Your task to perform on an android device: Search for the best deal on a 3d printer on aliexpress Image 0: 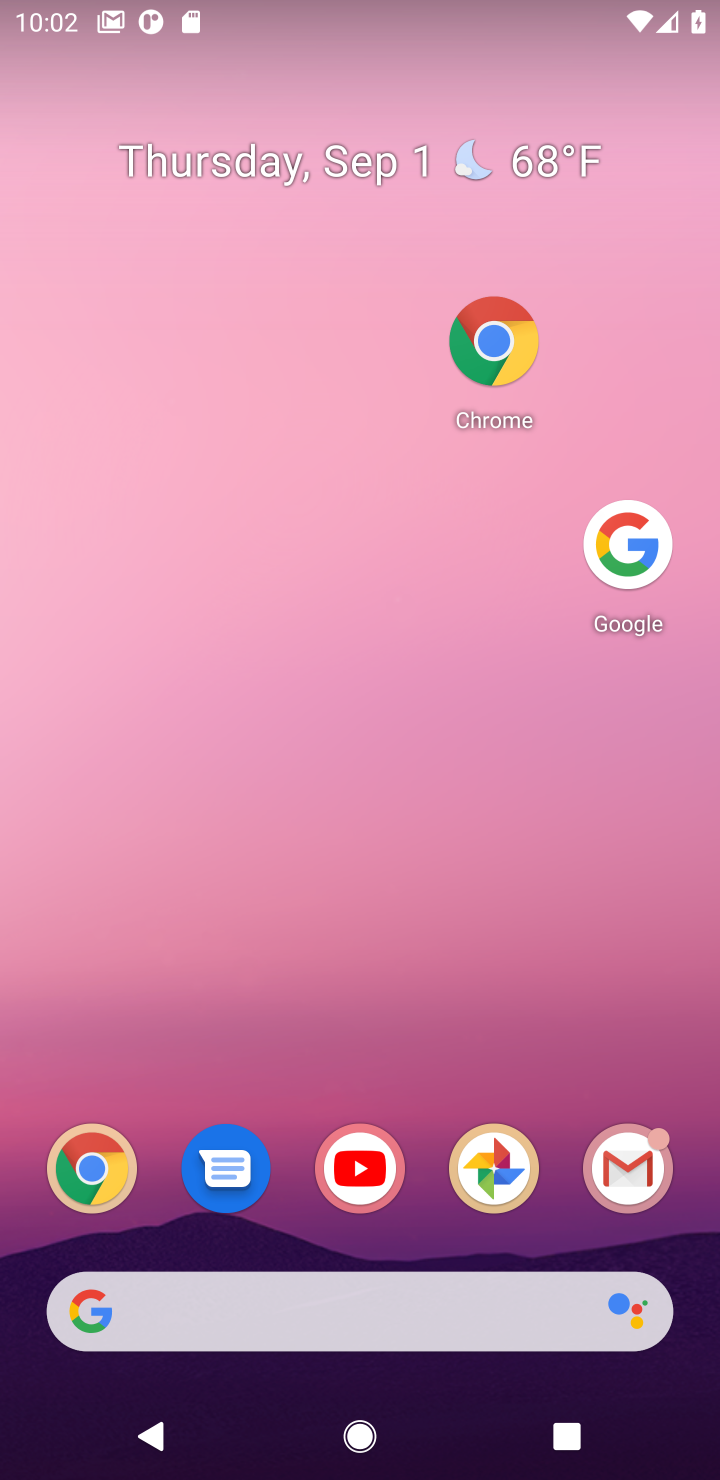
Step 0: drag from (238, 1078) to (372, 498)
Your task to perform on an android device: Search for the best deal on a 3d printer on aliexpress Image 1: 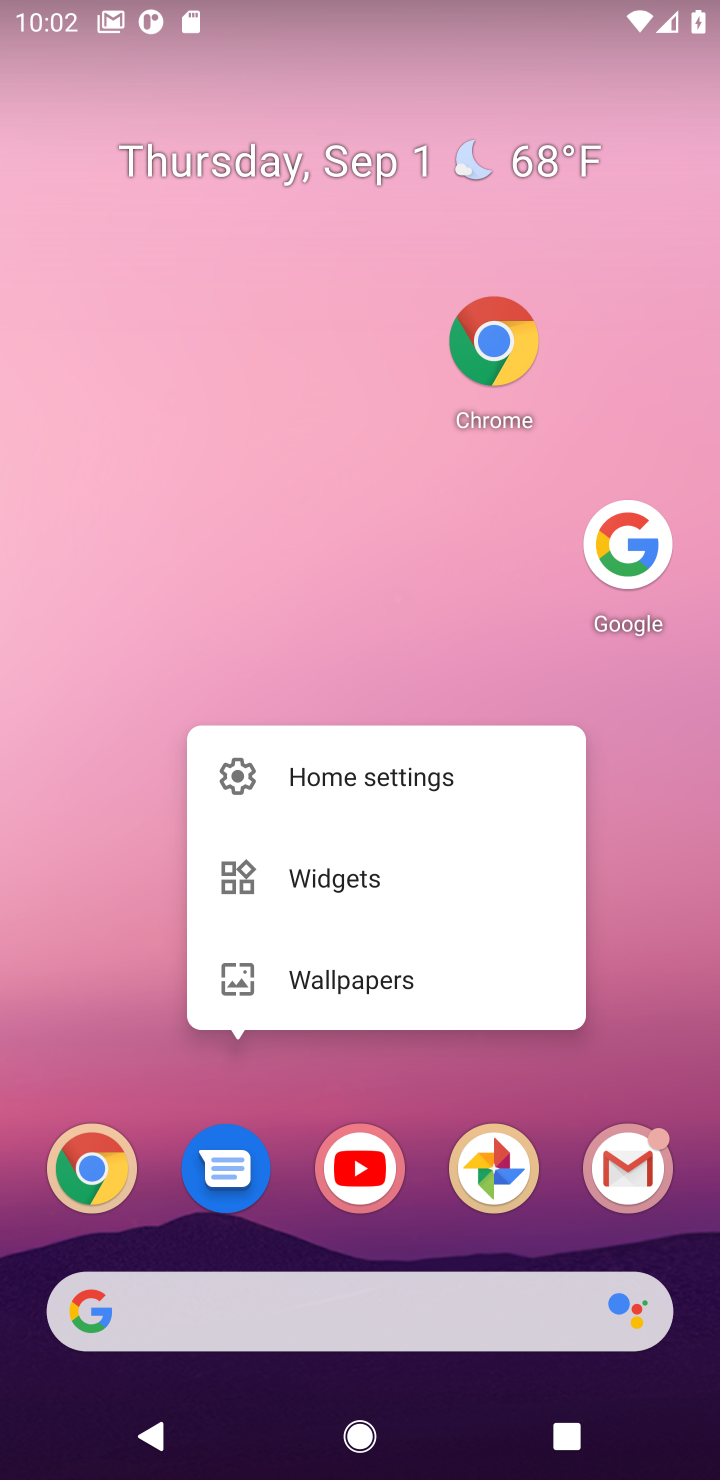
Step 1: click (632, 554)
Your task to perform on an android device: Search for the best deal on a 3d printer on aliexpress Image 2: 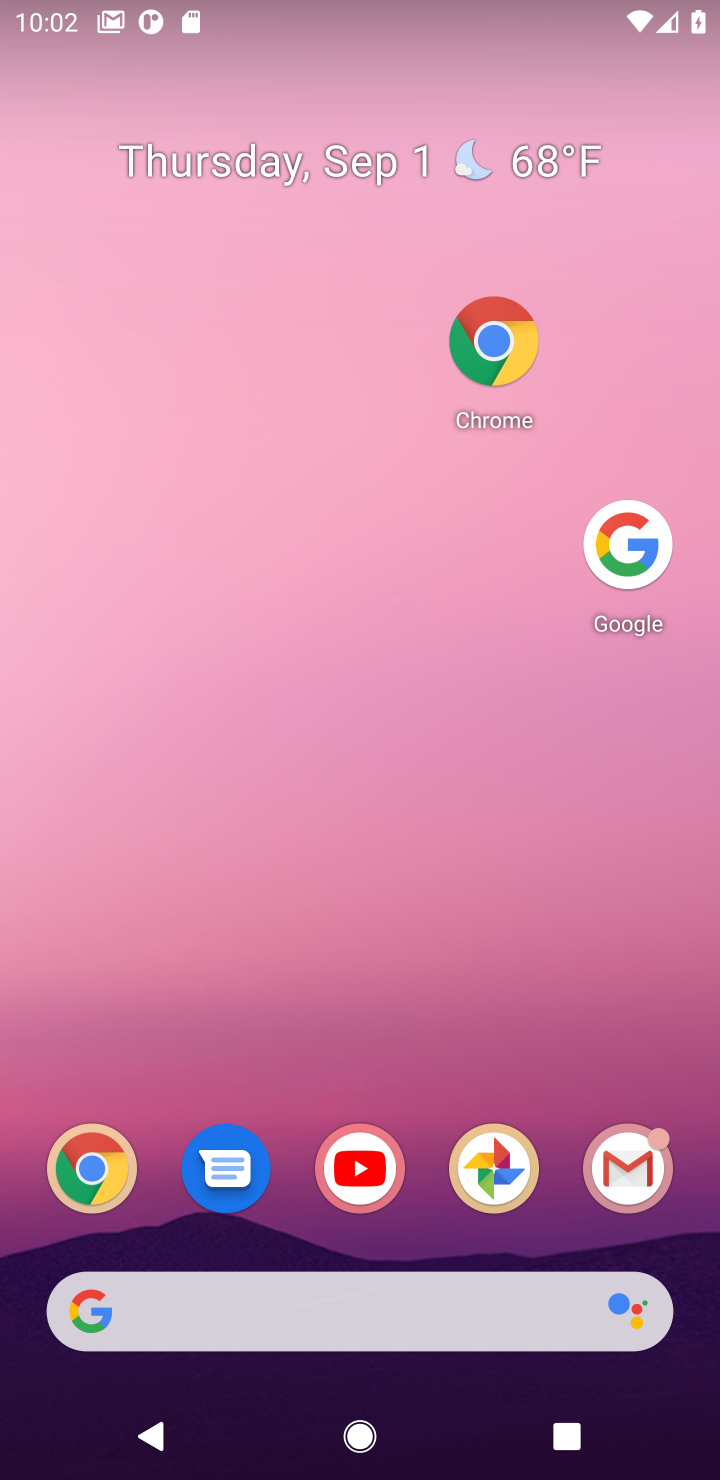
Step 2: click (620, 550)
Your task to perform on an android device: Search for the best deal on a 3d printer on aliexpress Image 3: 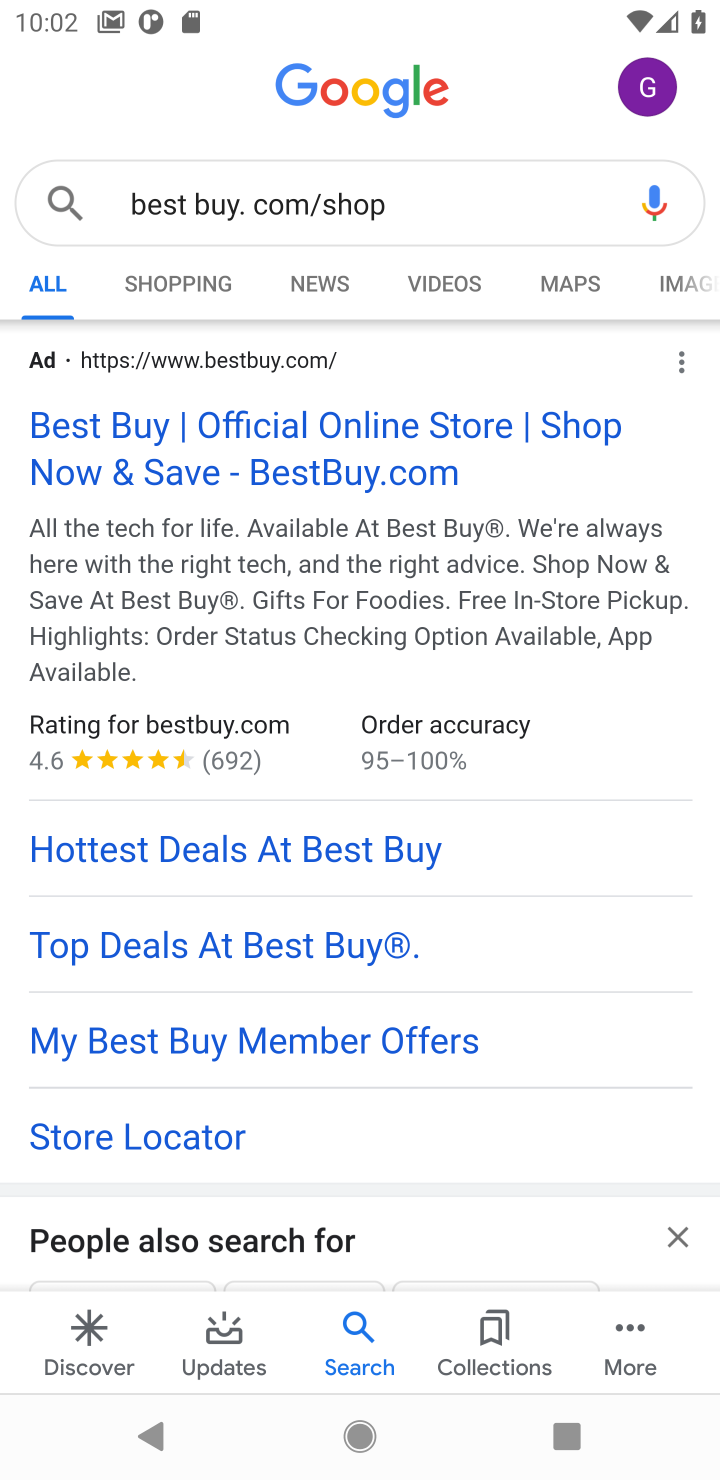
Step 3: click (474, 202)
Your task to perform on an android device: Search for the best deal on a 3d printer on aliexpress Image 4: 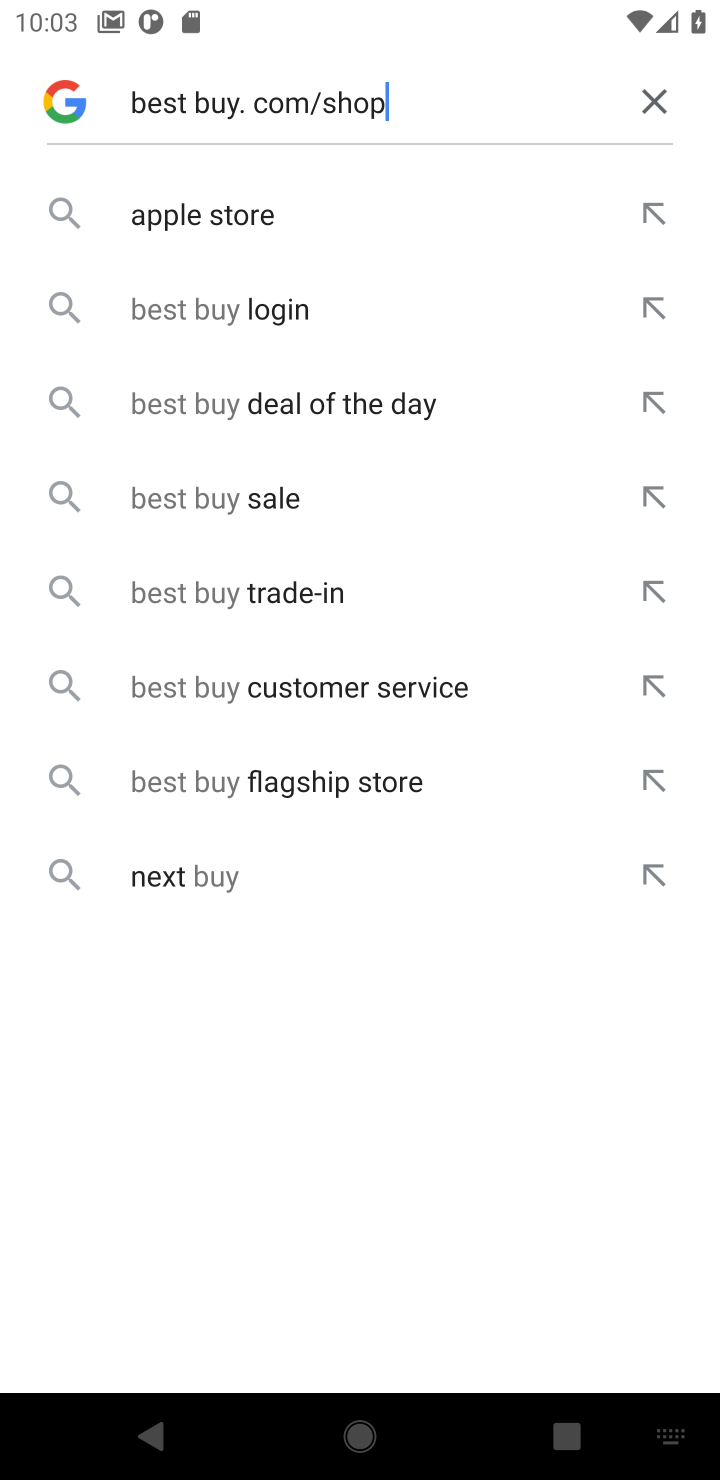
Step 4: click (651, 112)
Your task to perform on an android device: Search for the best deal on a 3d printer on aliexpress Image 5: 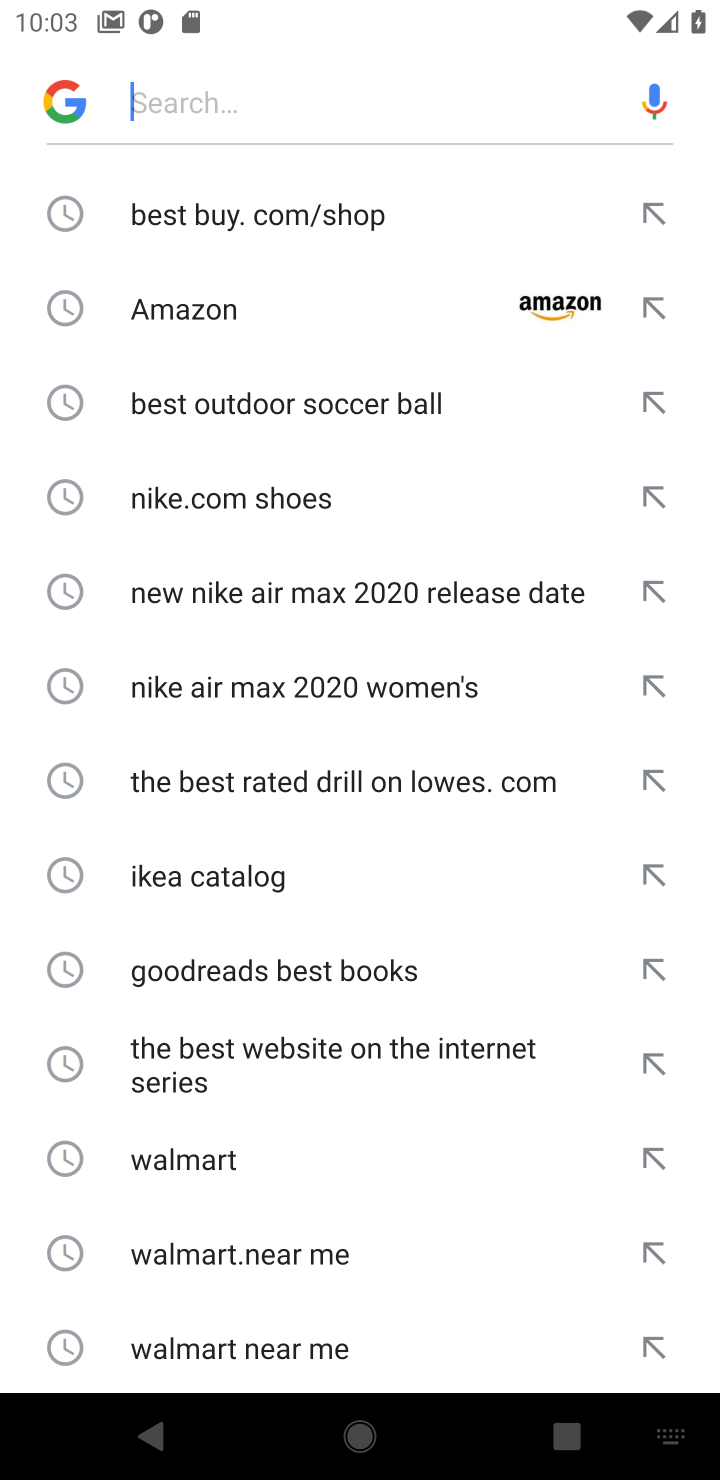
Step 5: click (273, 75)
Your task to perform on an android device: Search for the best deal on a 3d printer on aliexpress Image 6: 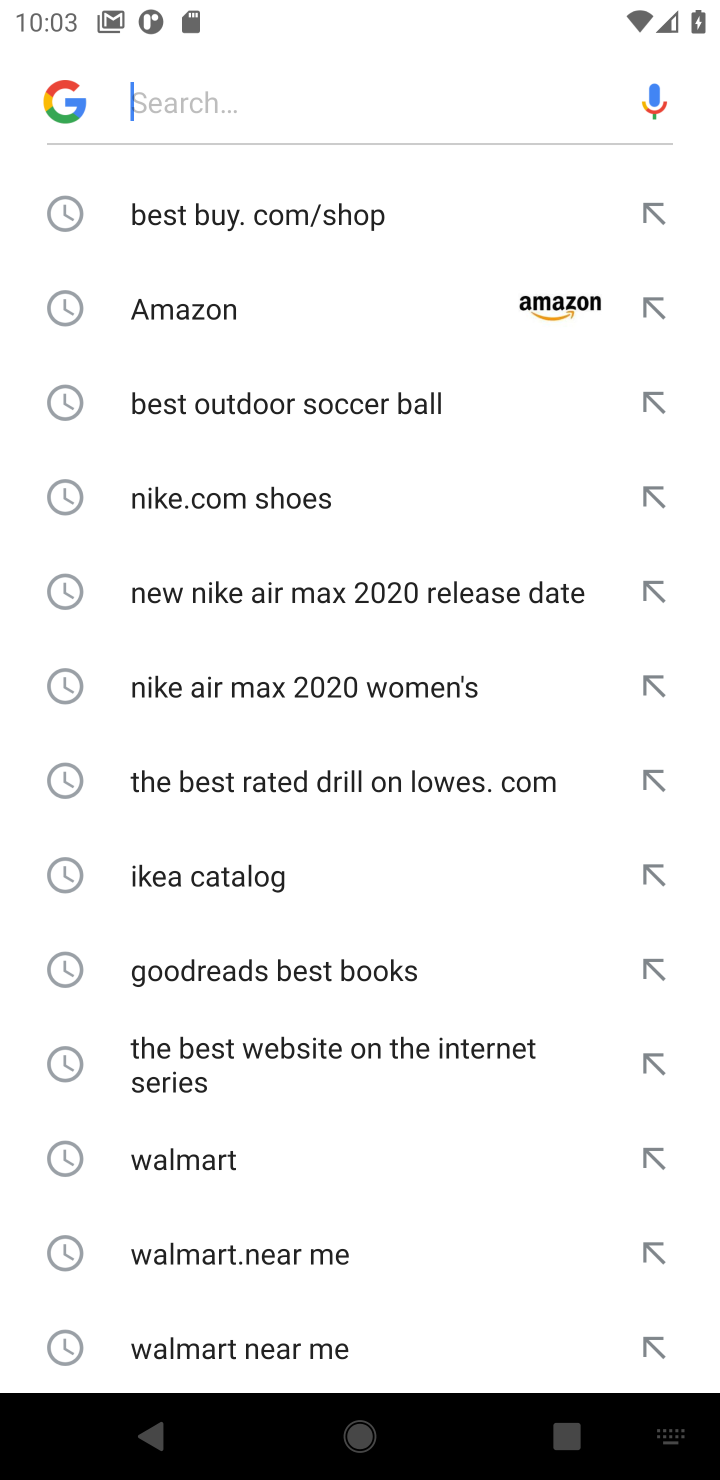
Step 6: type " the best deal on a 3d printer on aliexpress"
Your task to perform on an android device: Search for the best deal on a 3d printer on aliexpress Image 7: 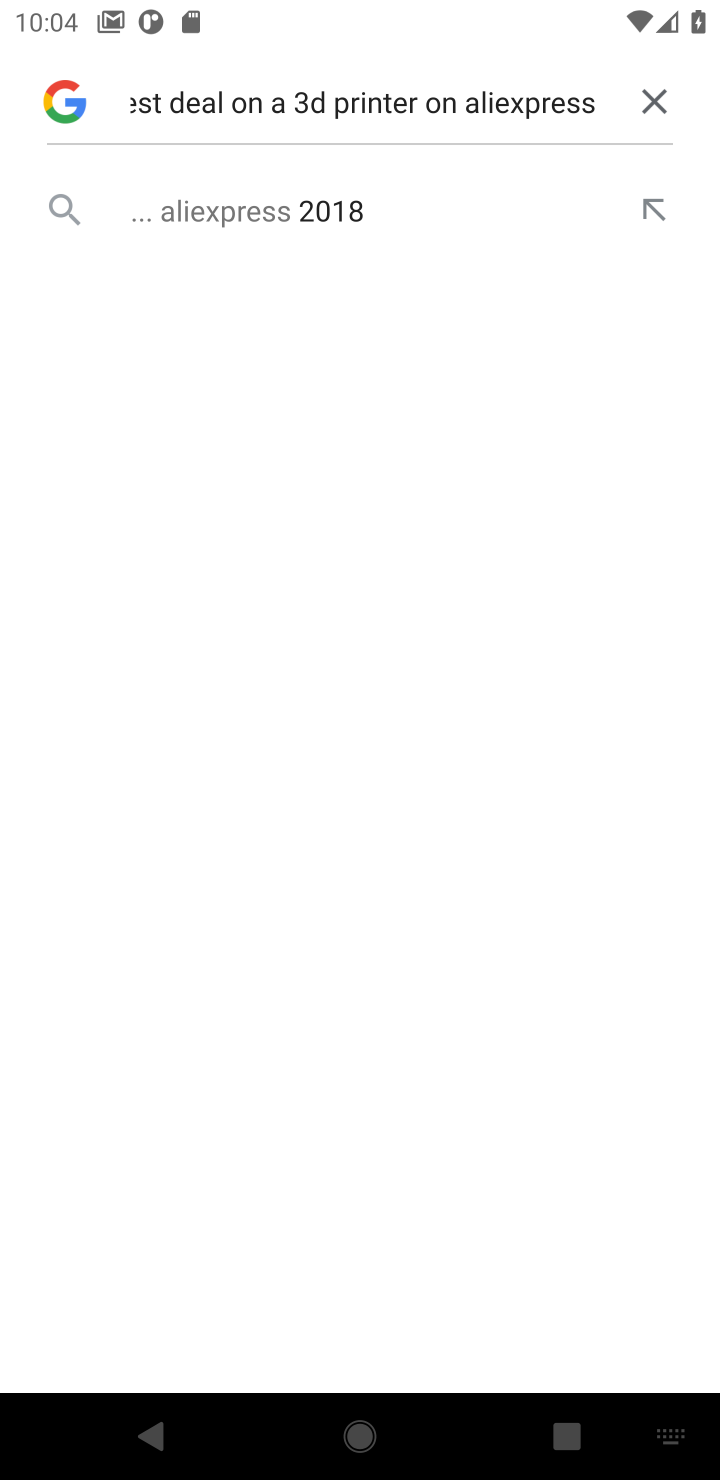
Step 7: click (242, 203)
Your task to perform on an android device: Search for the best deal on a 3d printer on aliexpress Image 8: 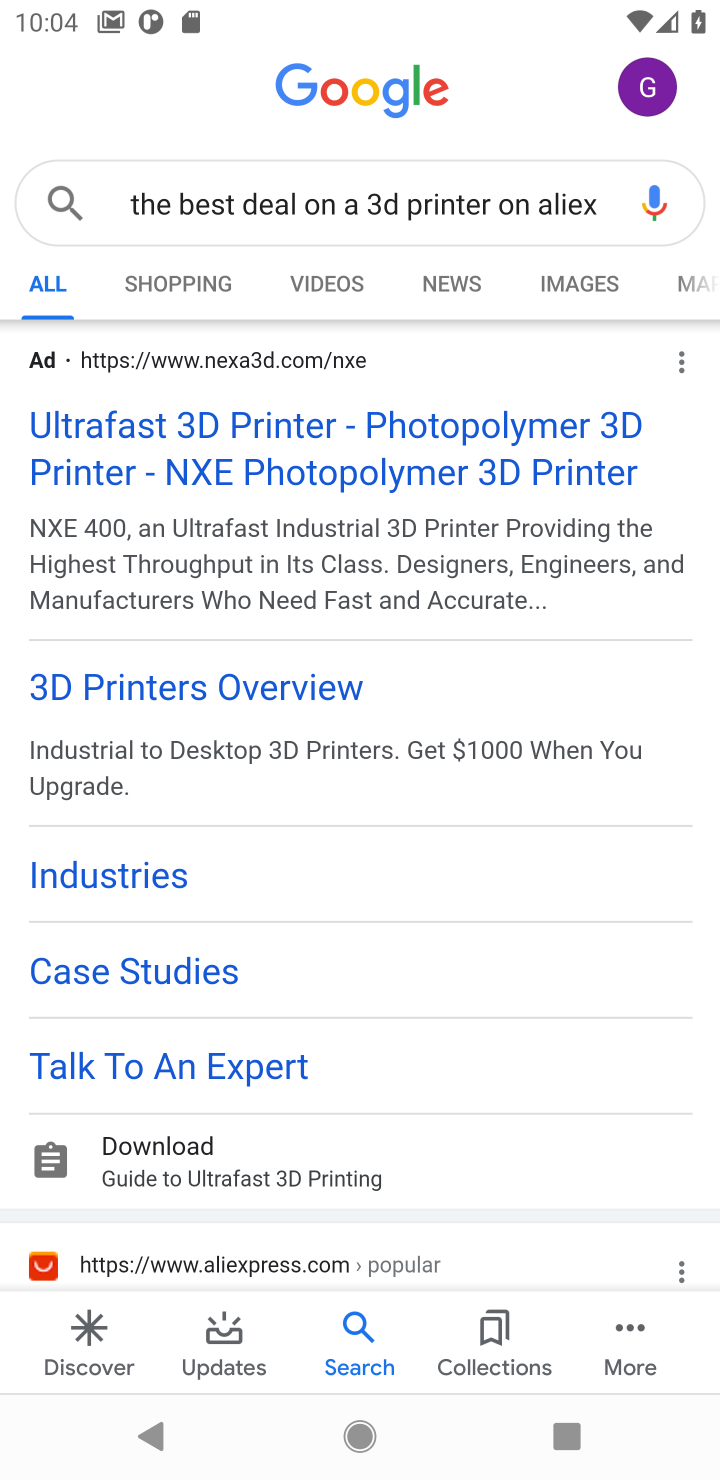
Step 8: click (371, 496)
Your task to perform on an android device: Search for the best deal on a 3d printer on aliexpress Image 9: 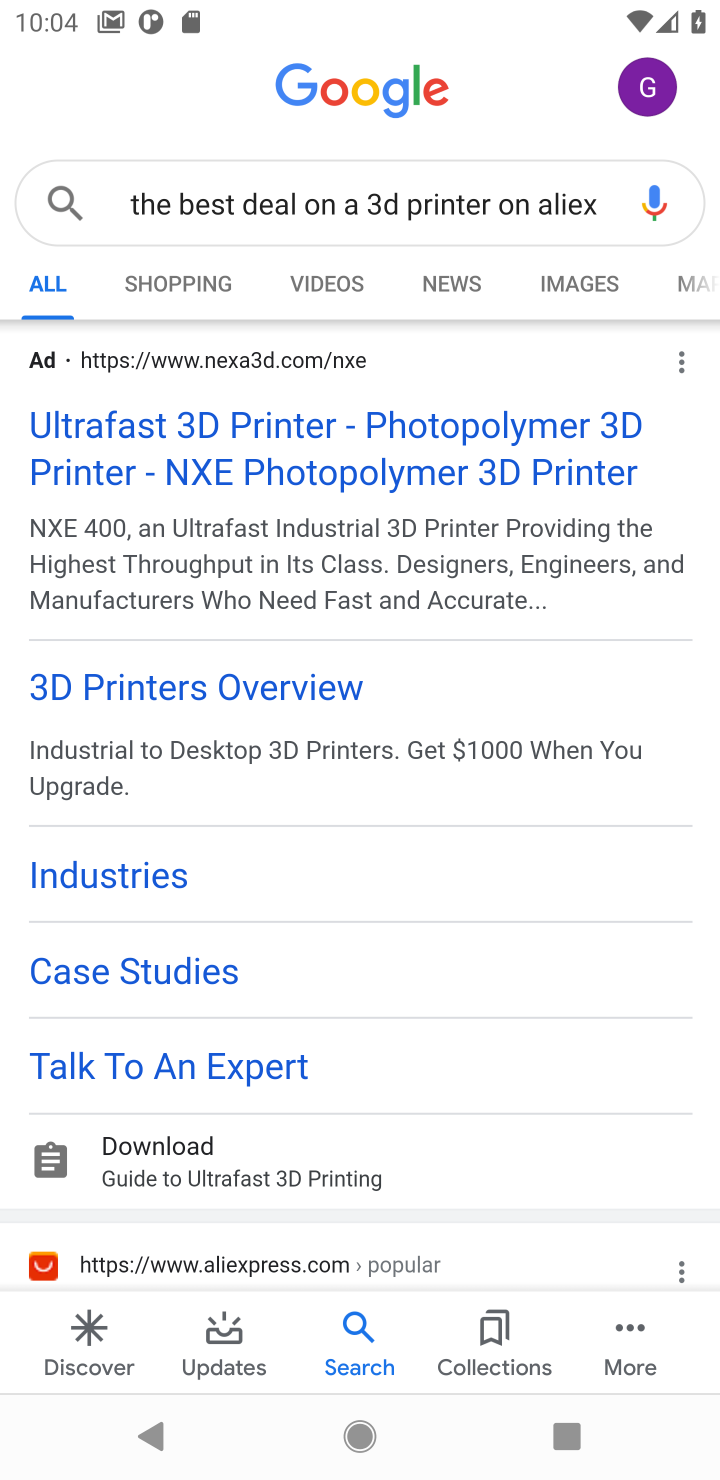
Step 9: drag from (446, 885) to (457, 374)
Your task to perform on an android device: Search for the best deal on a 3d printer on aliexpress Image 10: 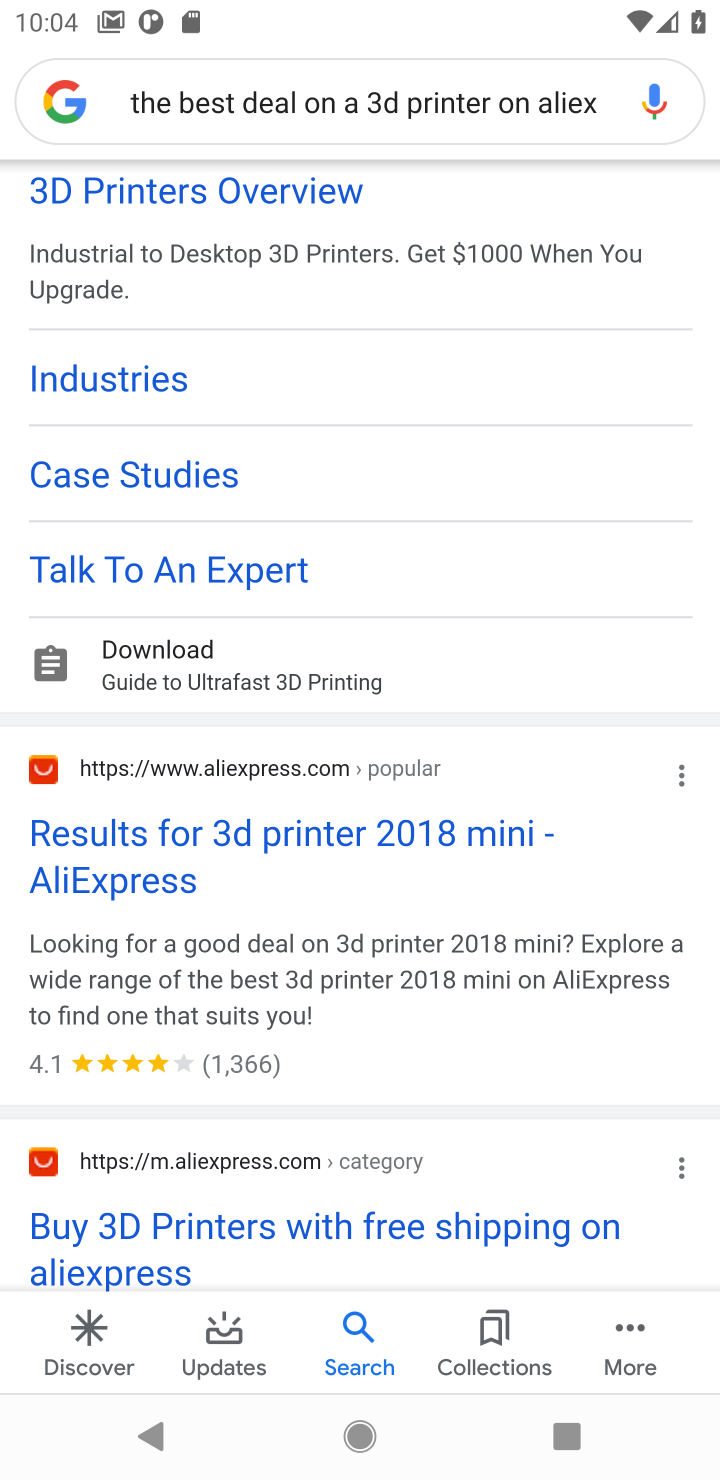
Step 10: click (140, 821)
Your task to perform on an android device: Search for the best deal on a 3d printer on aliexpress Image 11: 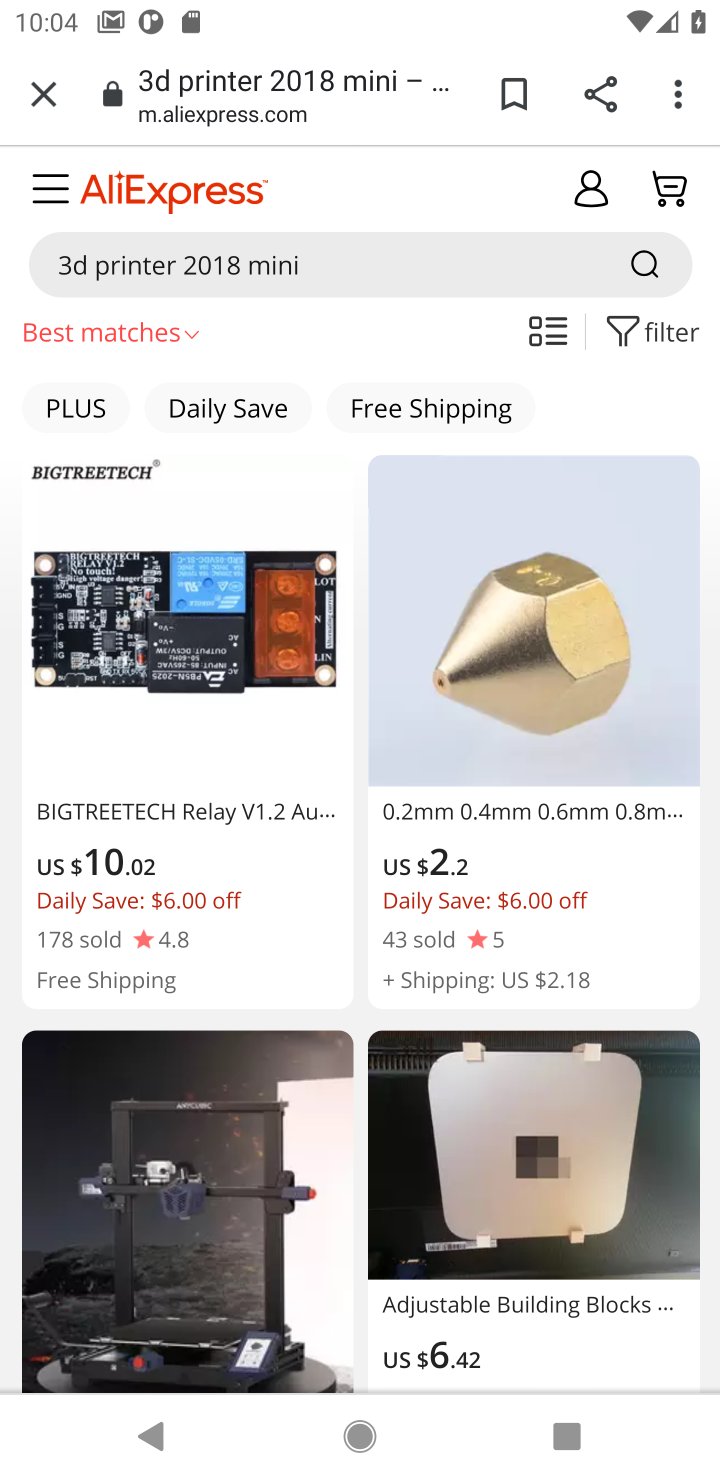
Step 11: drag from (284, 1095) to (366, 399)
Your task to perform on an android device: Search for the best deal on a 3d printer on aliexpress Image 12: 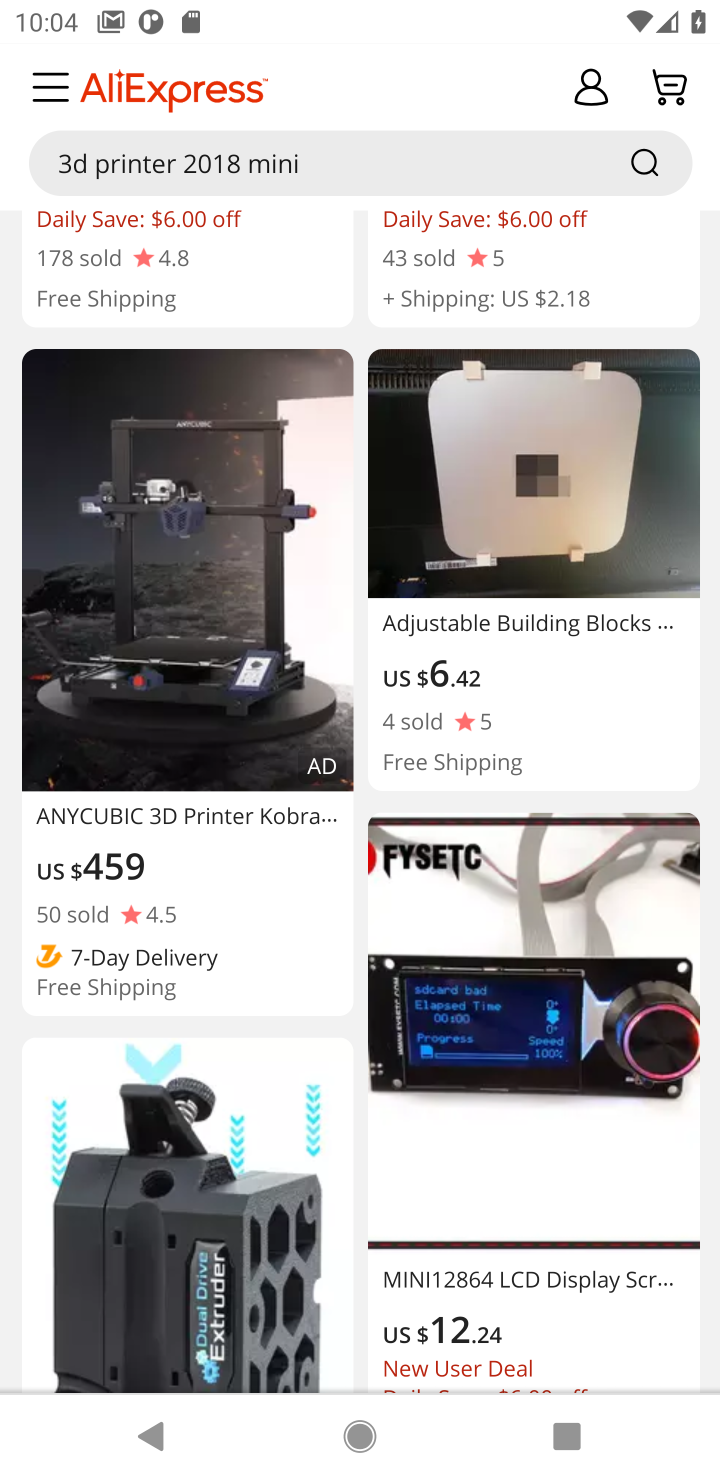
Step 12: drag from (318, 466) to (330, 1301)
Your task to perform on an android device: Search for the best deal on a 3d printer on aliexpress Image 13: 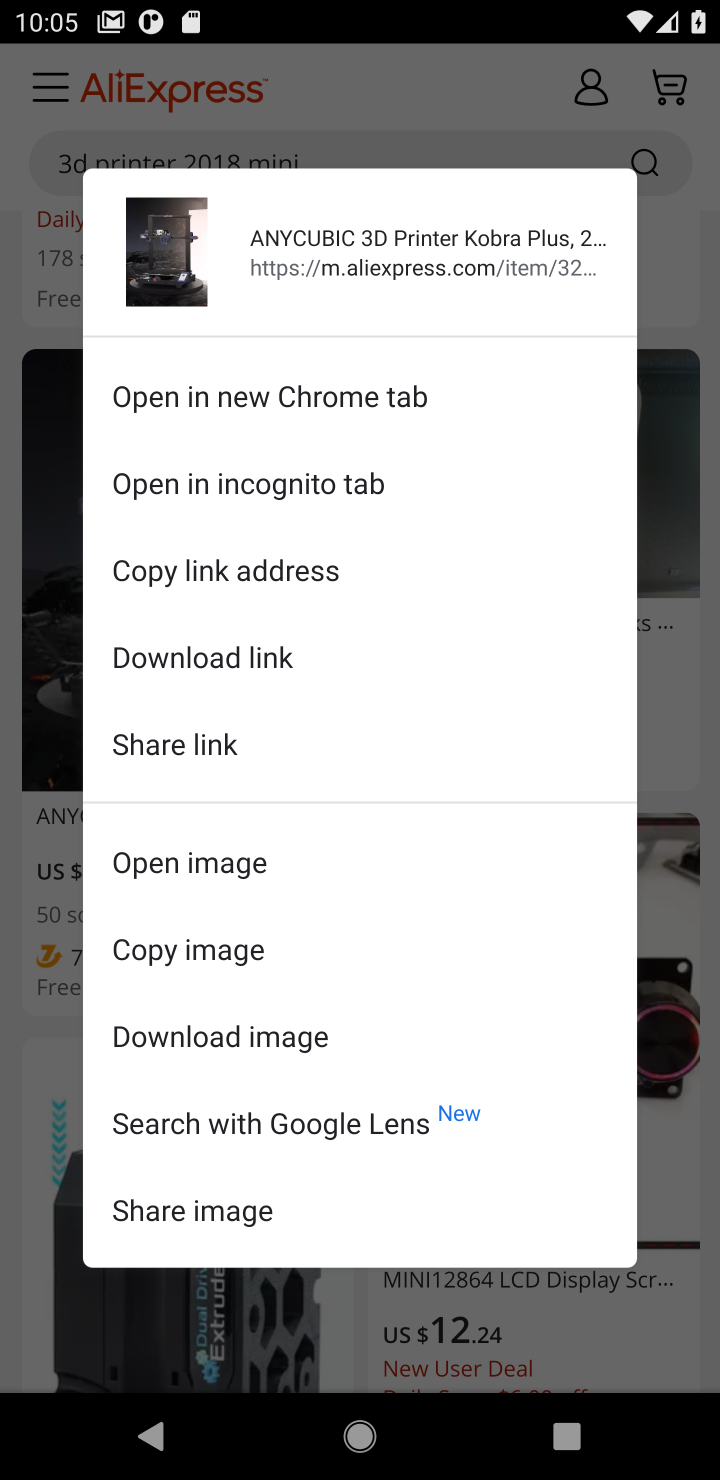
Step 13: click (694, 250)
Your task to perform on an android device: Search for the best deal on a 3d printer on aliexpress Image 14: 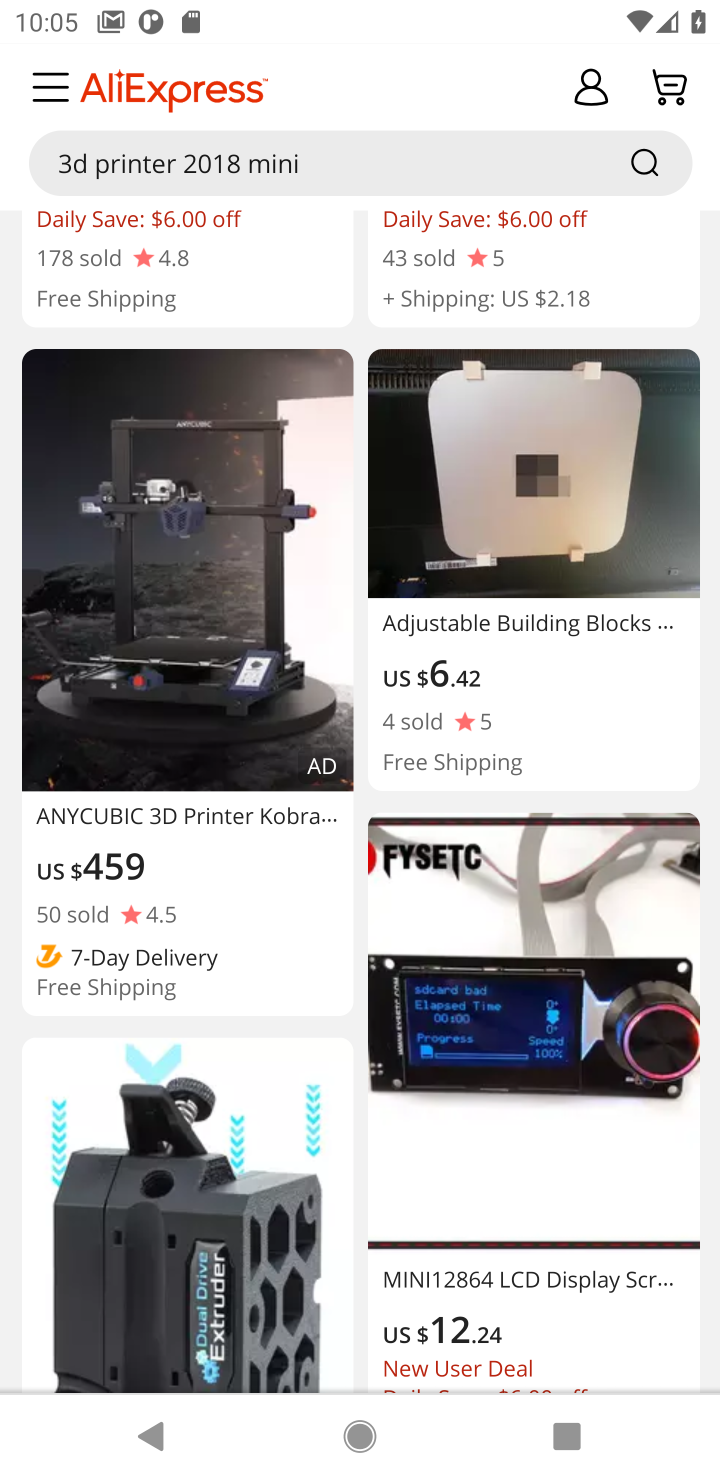
Step 14: drag from (318, 248) to (250, 1269)
Your task to perform on an android device: Search for the best deal on a 3d printer on aliexpress Image 15: 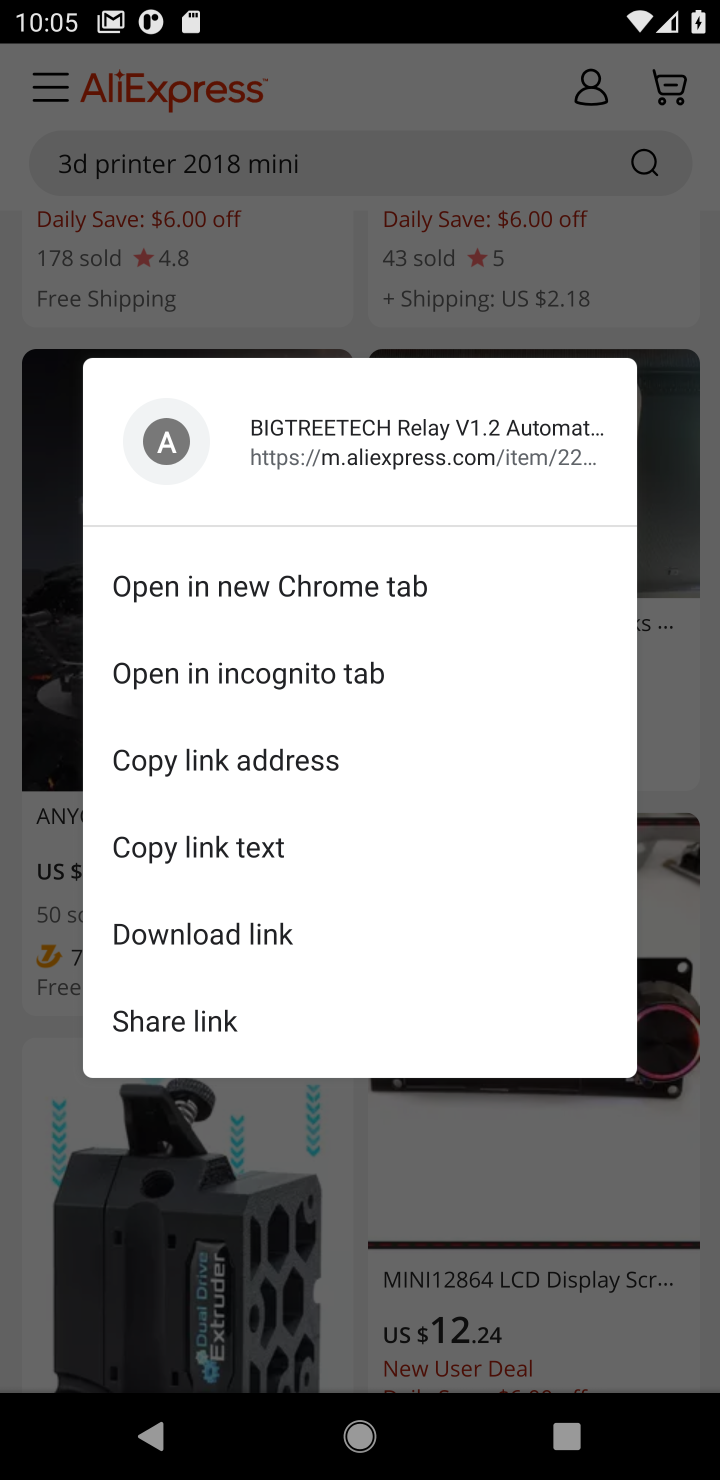
Step 15: click (633, 240)
Your task to perform on an android device: Search for the best deal on a 3d printer on aliexpress Image 16: 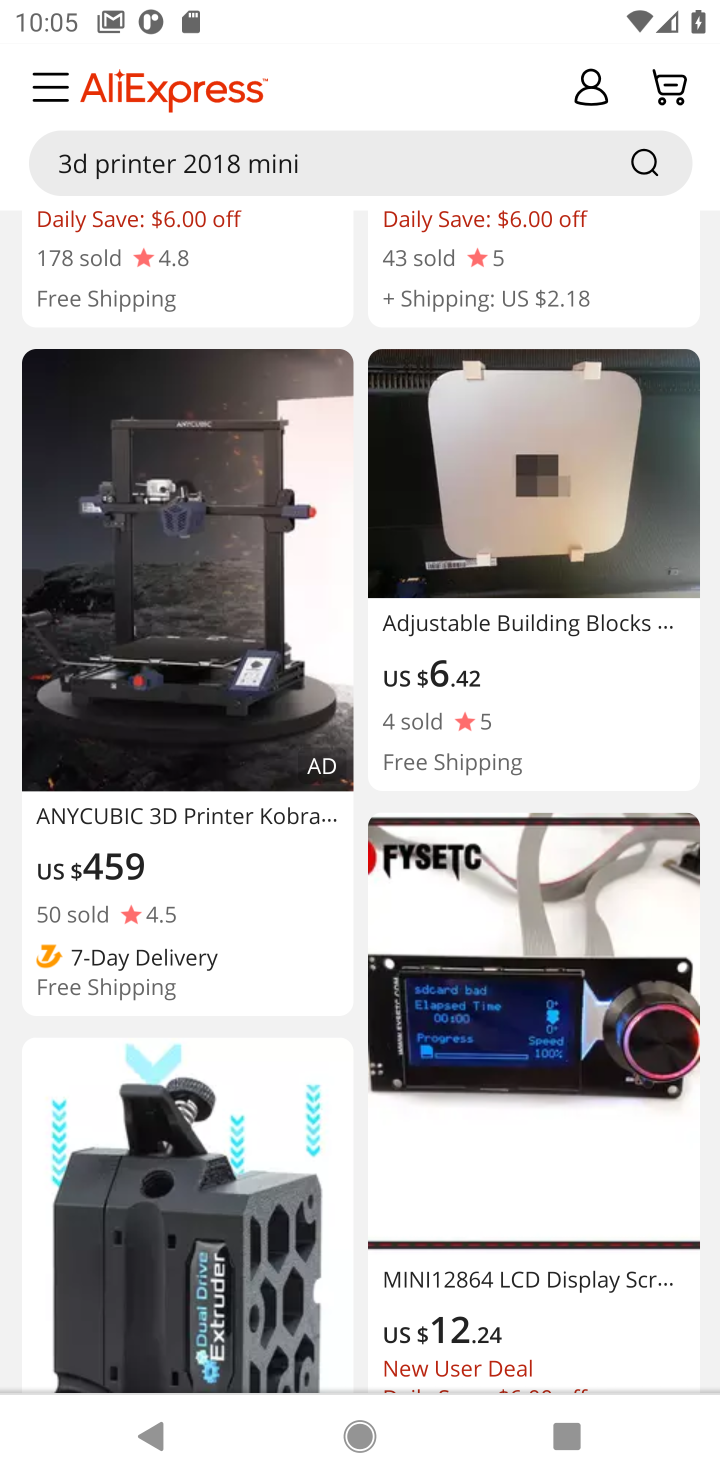
Step 16: task complete